Your task to perform on an android device: see creations saved in the google photos Image 0: 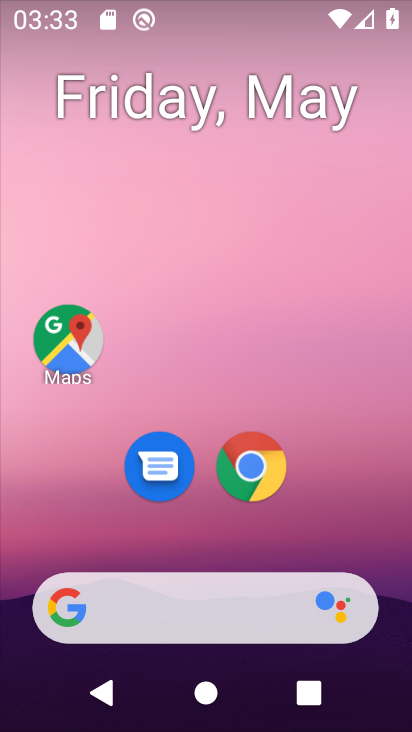
Step 0: drag from (403, 644) to (375, 140)
Your task to perform on an android device: see creations saved in the google photos Image 1: 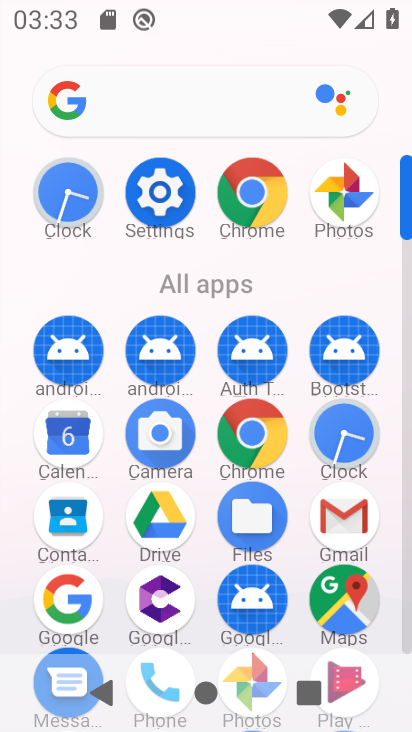
Step 1: click (235, 658)
Your task to perform on an android device: see creations saved in the google photos Image 2: 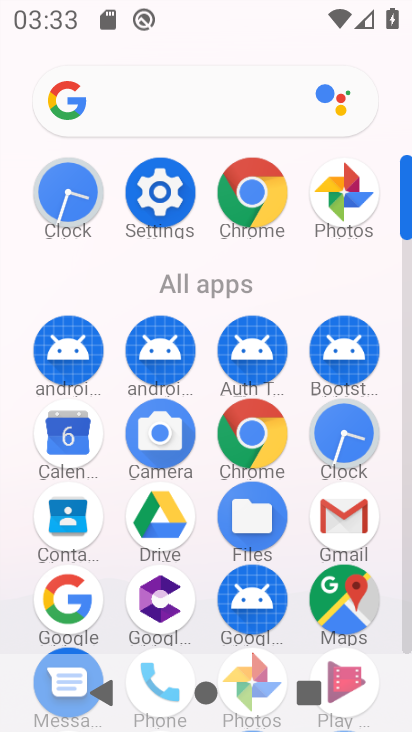
Step 2: drag from (406, 176) to (403, 120)
Your task to perform on an android device: see creations saved in the google photos Image 3: 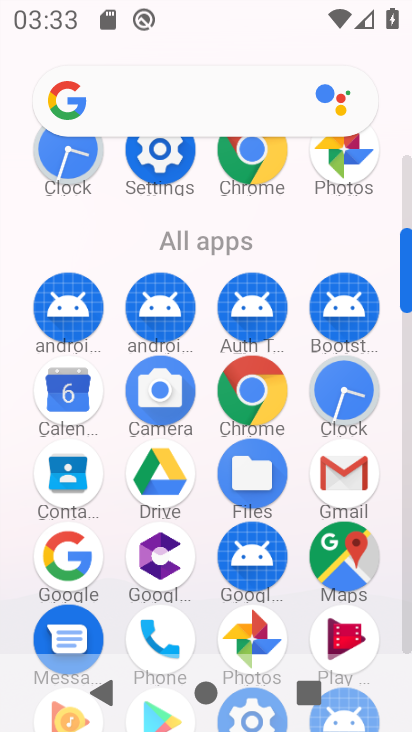
Step 3: click (254, 620)
Your task to perform on an android device: see creations saved in the google photos Image 4: 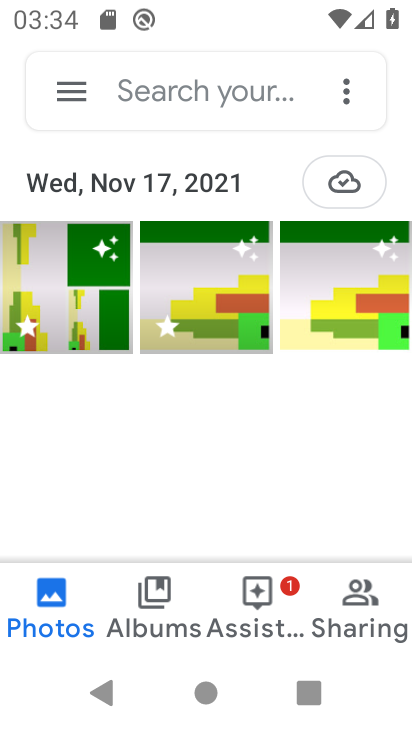
Step 4: click (77, 312)
Your task to perform on an android device: see creations saved in the google photos Image 5: 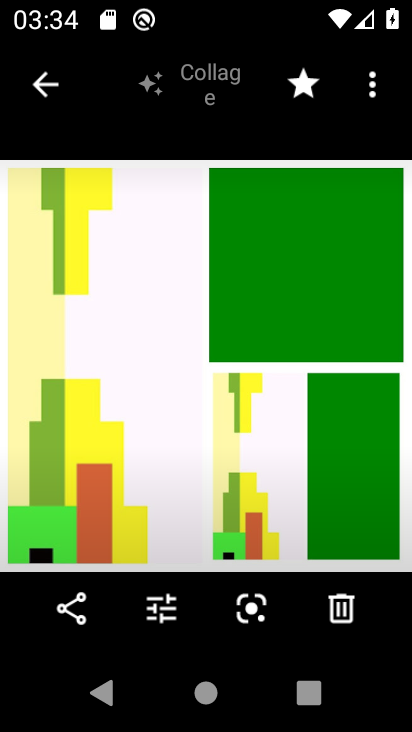
Step 5: click (56, 82)
Your task to perform on an android device: see creations saved in the google photos Image 6: 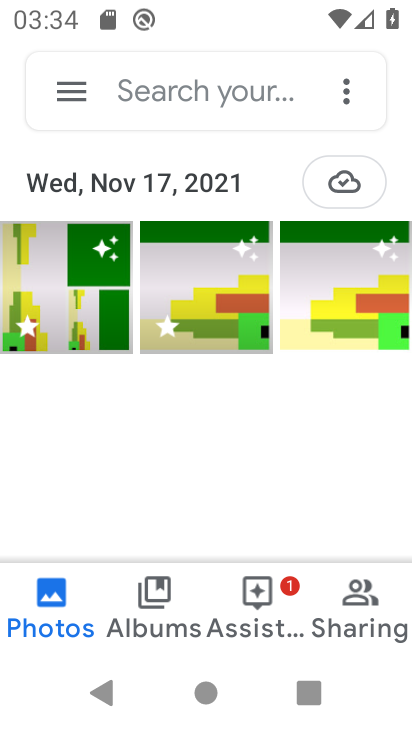
Step 6: click (191, 303)
Your task to perform on an android device: see creations saved in the google photos Image 7: 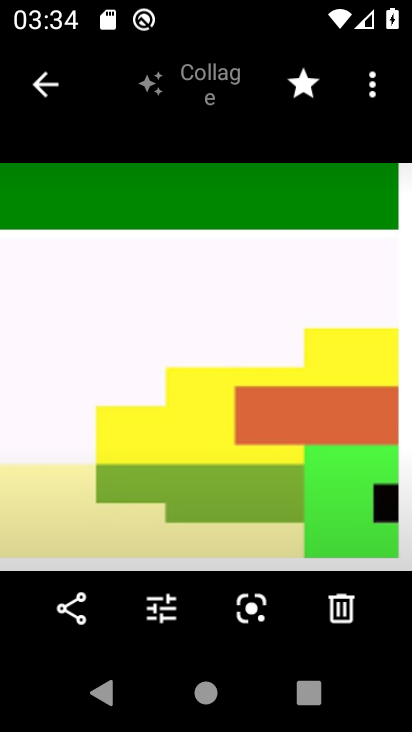
Step 7: click (47, 82)
Your task to perform on an android device: see creations saved in the google photos Image 8: 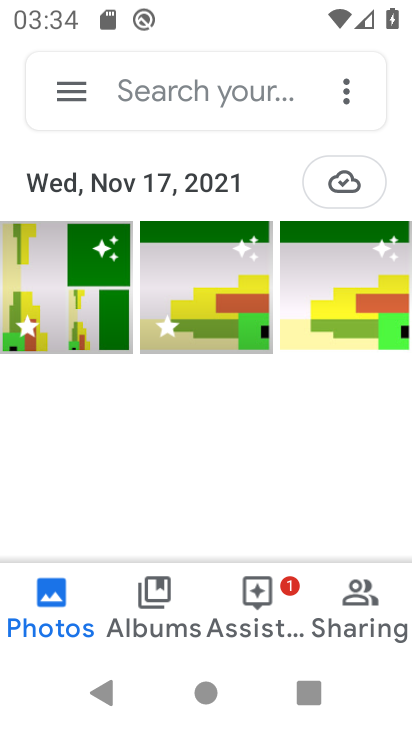
Step 8: task complete